Your task to perform on an android device: uninstall "Viber Messenger" Image 0: 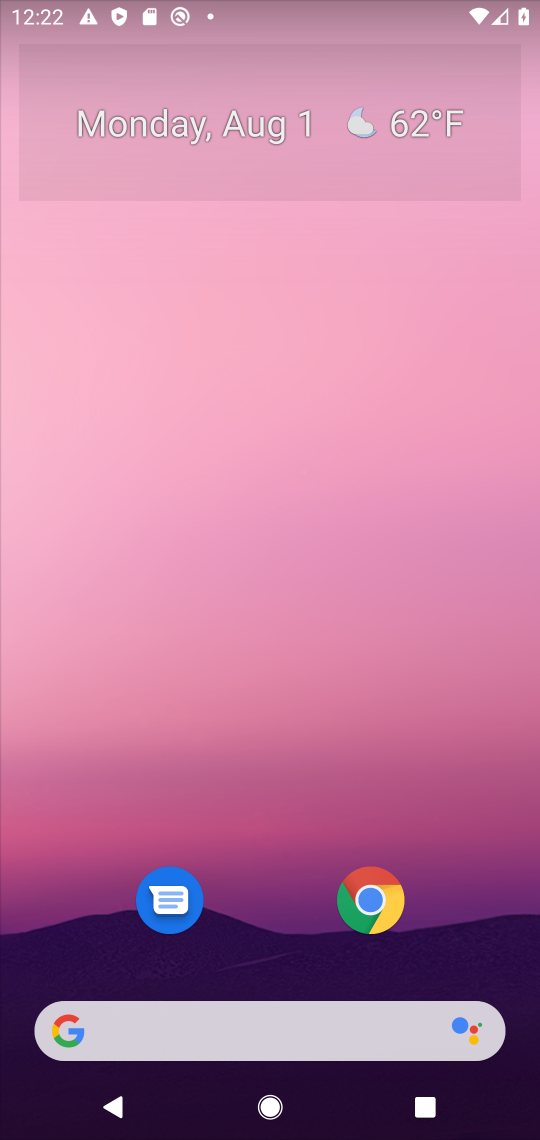
Step 0: drag from (351, 105) to (367, 57)
Your task to perform on an android device: uninstall "Viber Messenger" Image 1: 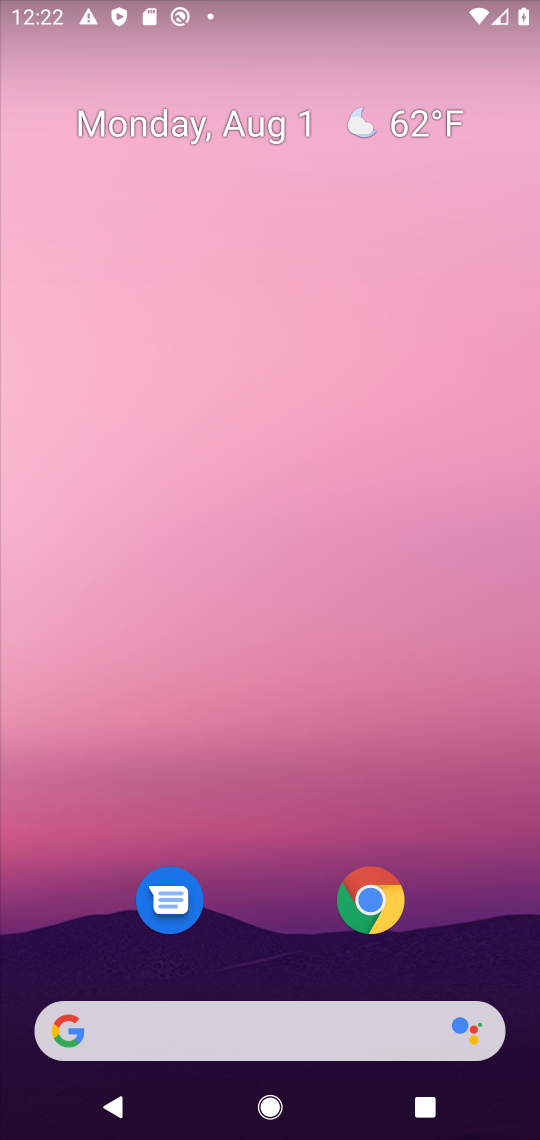
Step 1: drag from (167, 881) to (187, 34)
Your task to perform on an android device: uninstall "Viber Messenger" Image 2: 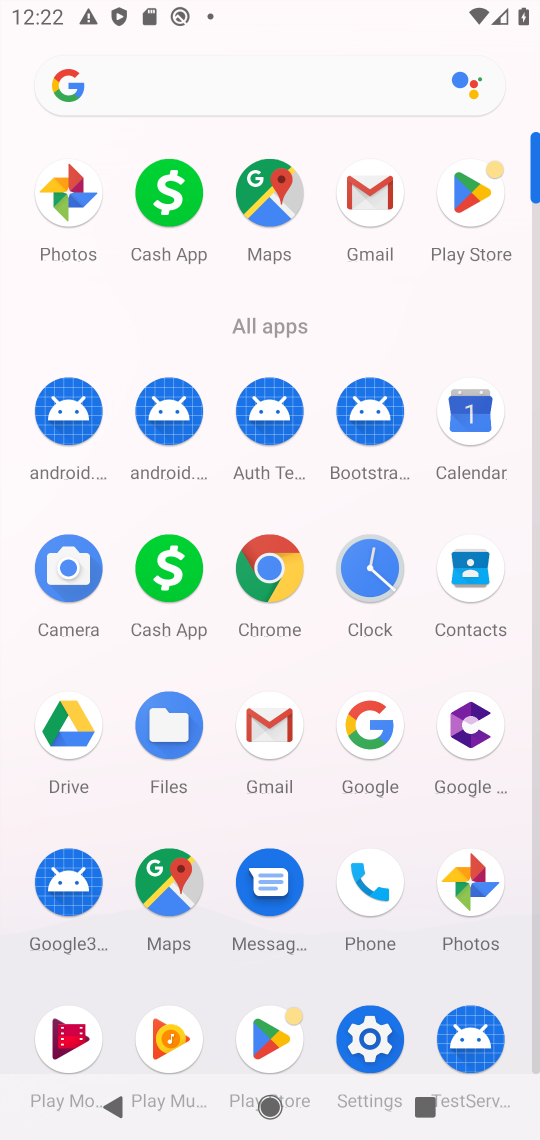
Step 2: click (266, 152)
Your task to perform on an android device: uninstall "Viber Messenger" Image 3: 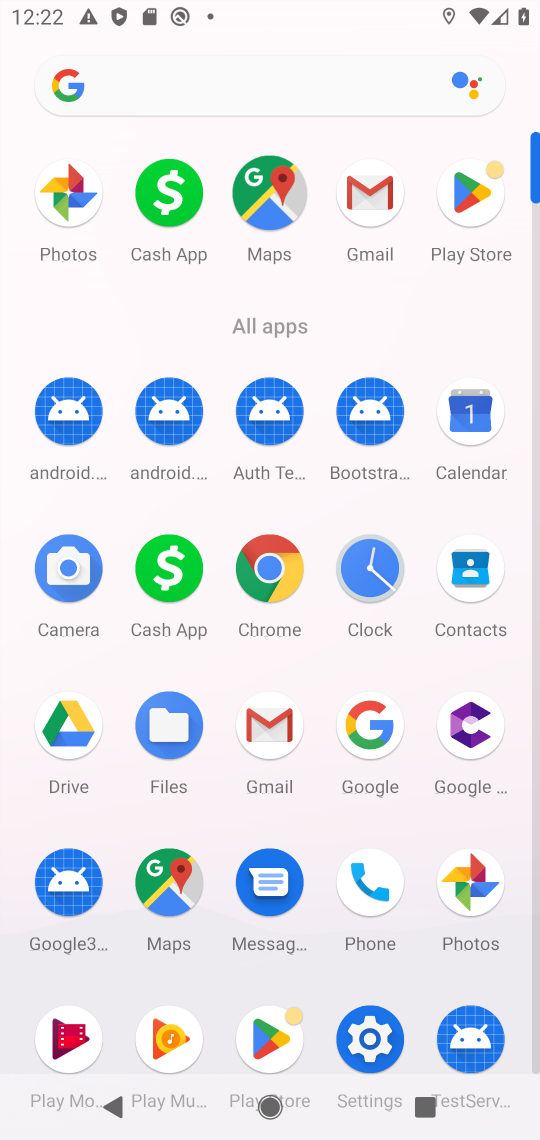
Step 3: click (313, 95)
Your task to perform on an android device: uninstall "Viber Messenger" Image 4: 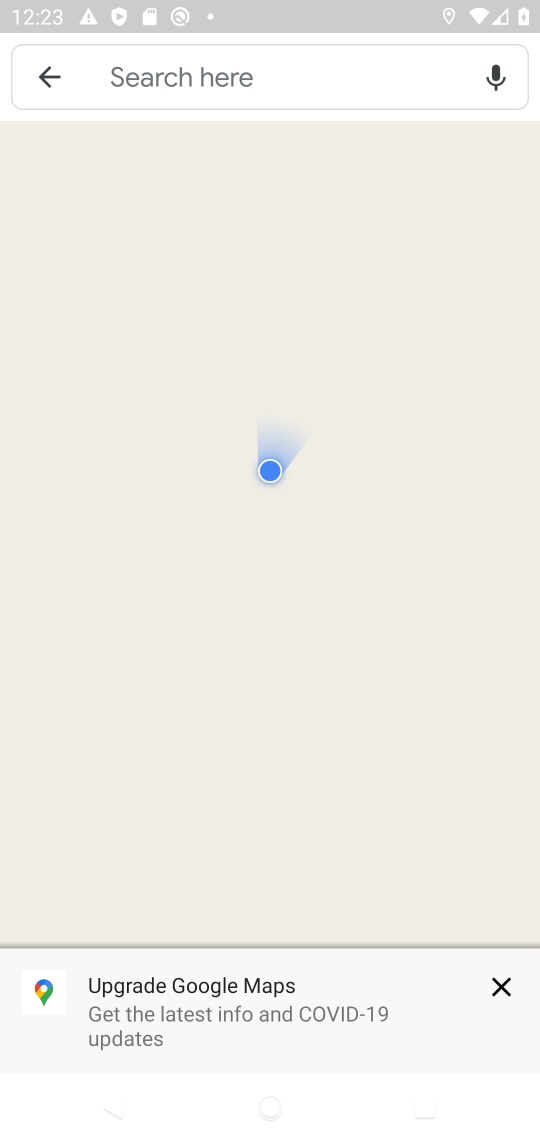
Step 4: press home button
Your task to perform on an android device: uninstall "Viber Messenger" Image 5: 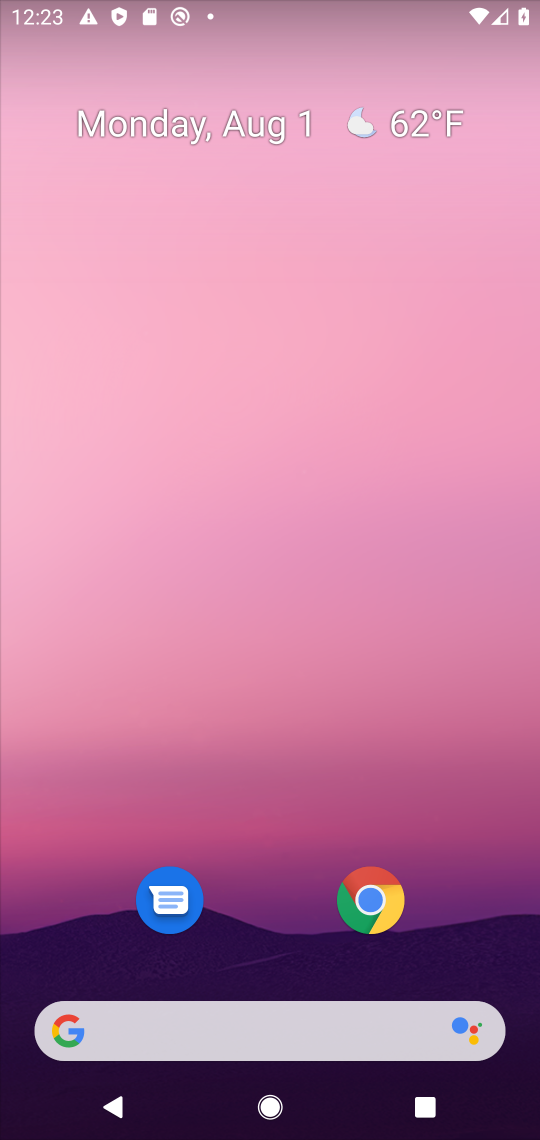
Step 5: drag from (193, 596) to (212, 2)
Your task to perform on an android device: uninstall "Viber Messenger" Image 6: 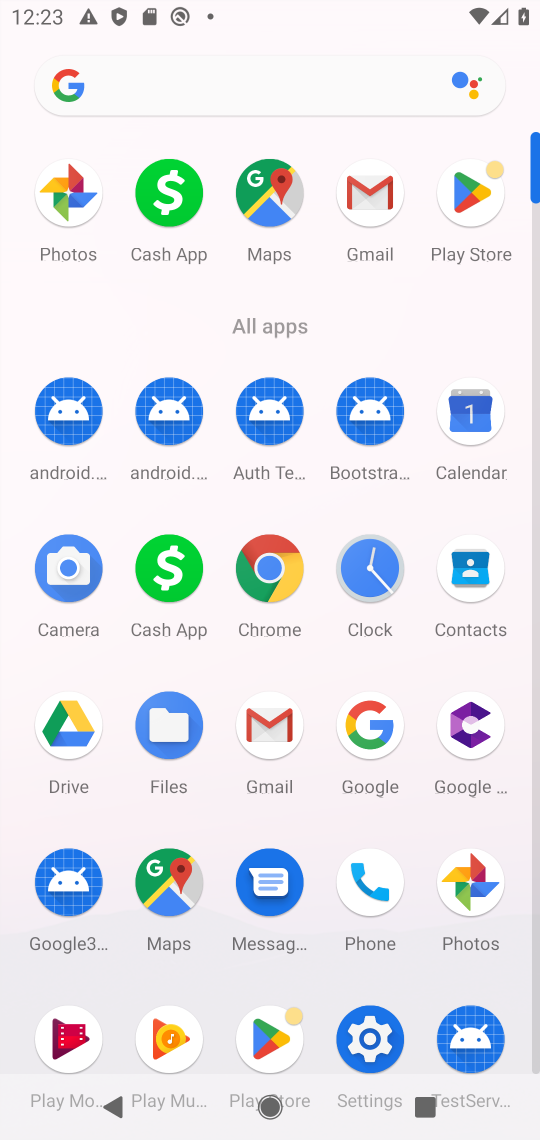
Step 6: click (472, 206)
Your task to perform on an android device: uninstall "Viber Messenger" Image 7: 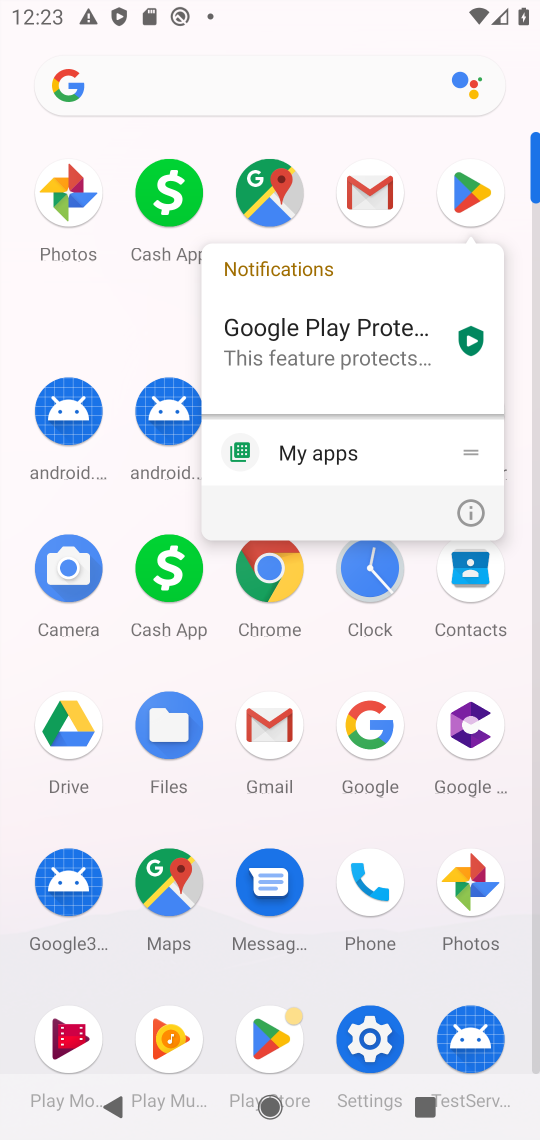
Step 7: click (472, 206)
Your task to perform on an android device: uninstall "Viber Messenger" Image 8: 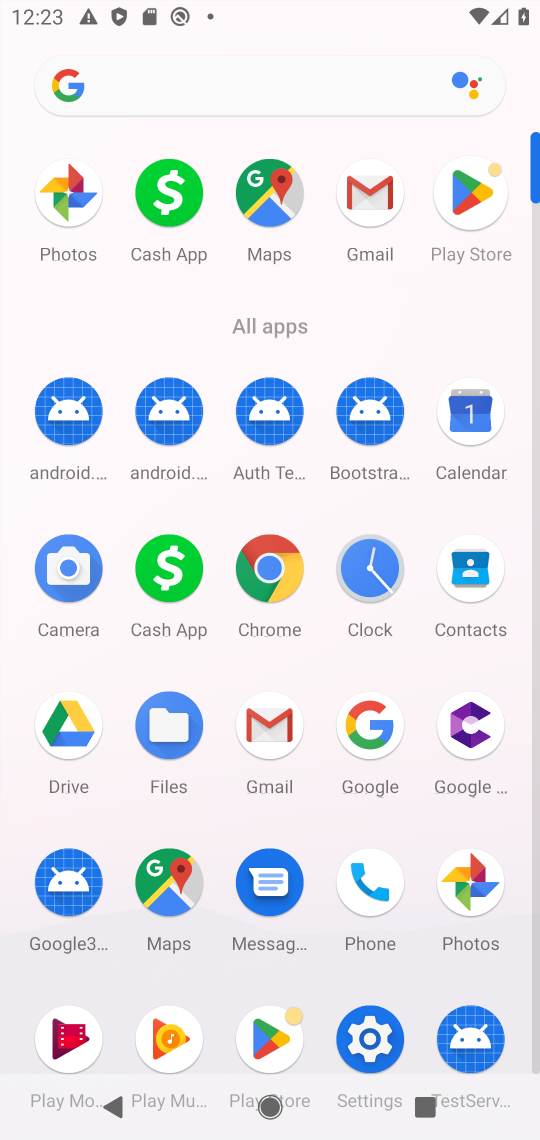
Step 8: click (472, 206)
Your task to perform on an android device: uninstall "Viber Messenger" Image 9: 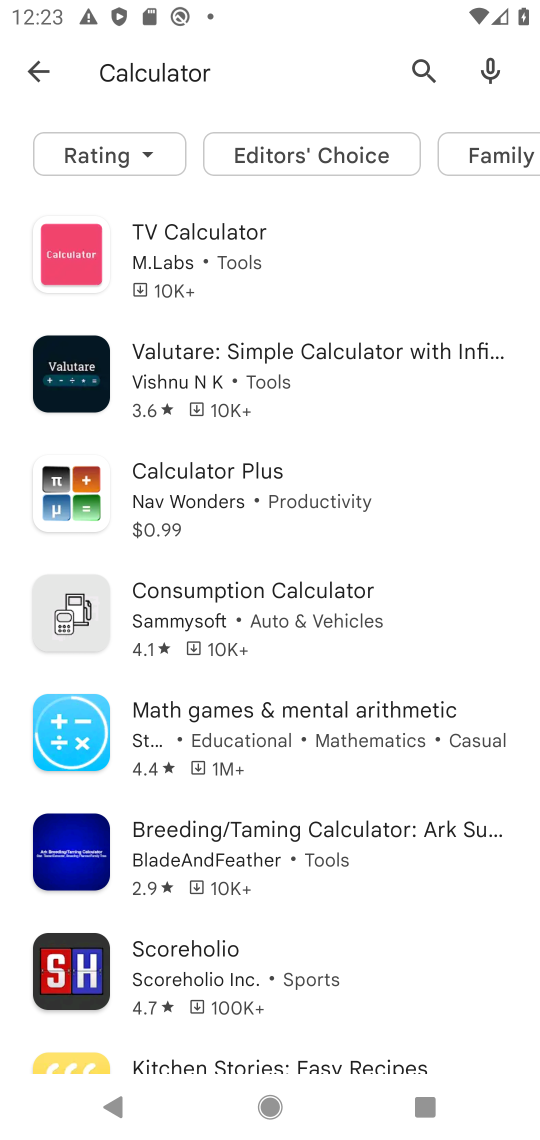
Step 9: click (442, 58)
Your task to perform on an android device: uninstall "Viber Messenger" Image 10: 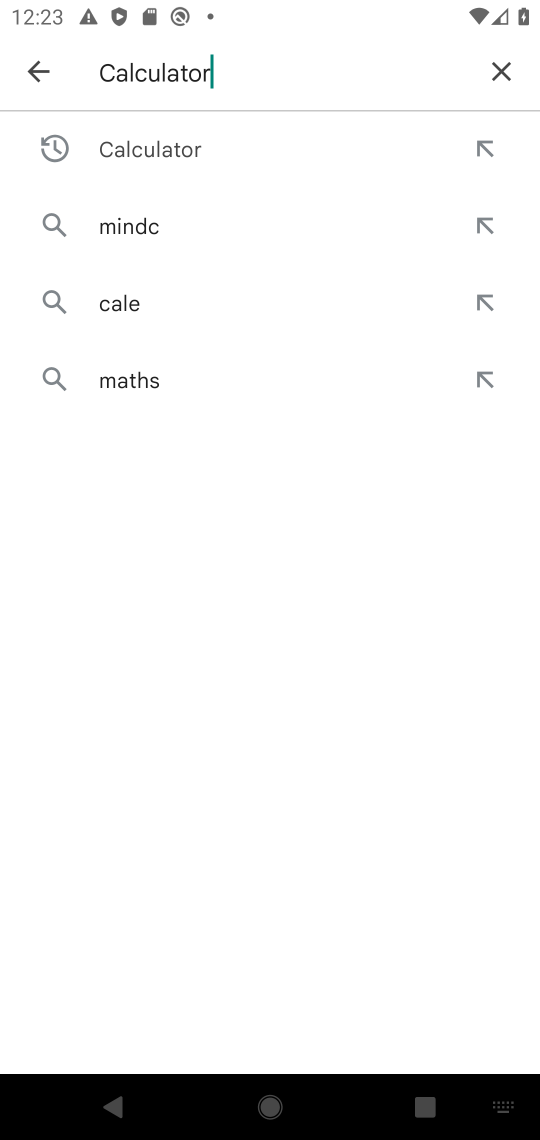
Step 10: click (512, 69)
Your task to perform on an android device: uninstall "Viber Messenger" Image 11: 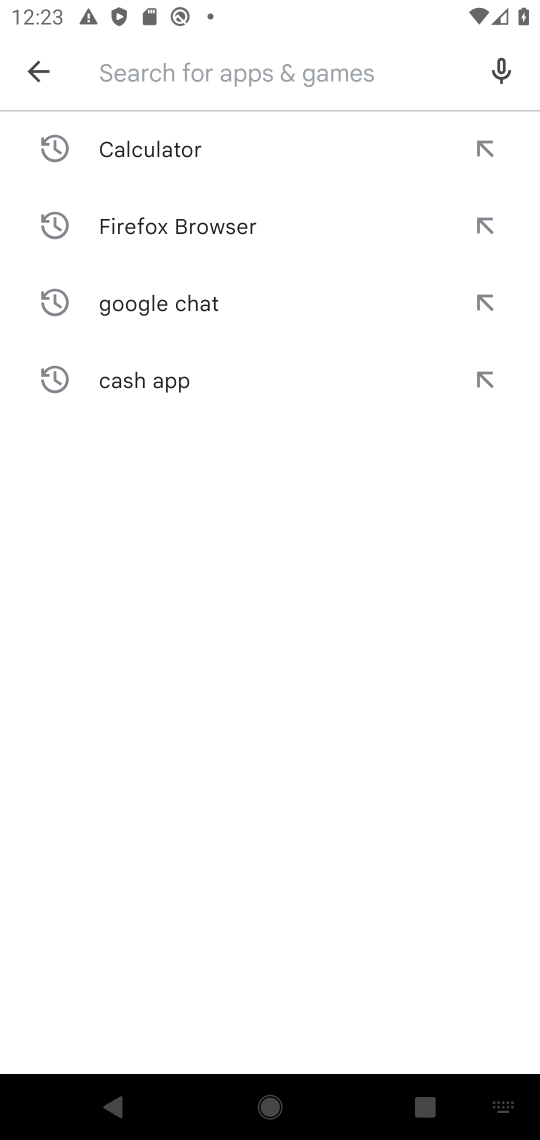
Step 11: type "Viber Messenger"
Your task to perform on an android device: uninstall "Viber Messenger" Image 12: 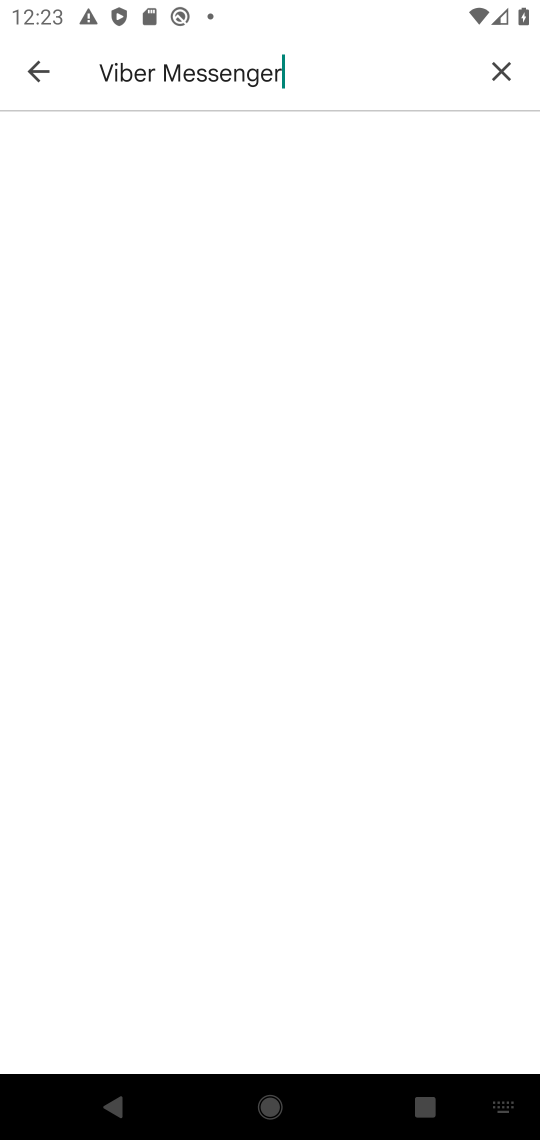
Step 12: press enter
Your task to perform on an android device: uninstall "Viber Messenger" Image 13: 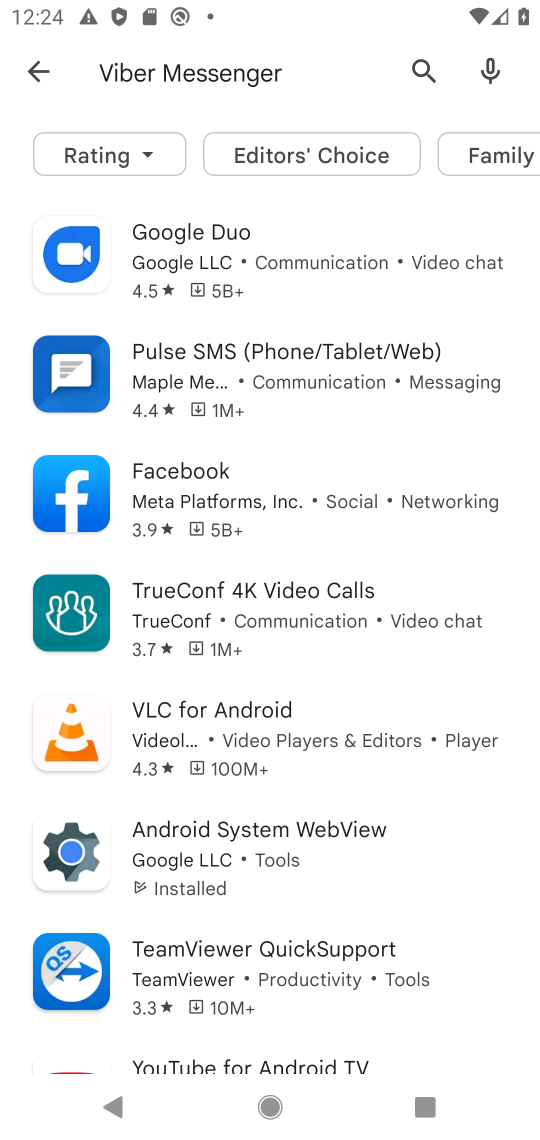
Step 13: task complete